Your task to perform on an android device: Open Yahoo.com Image 0: 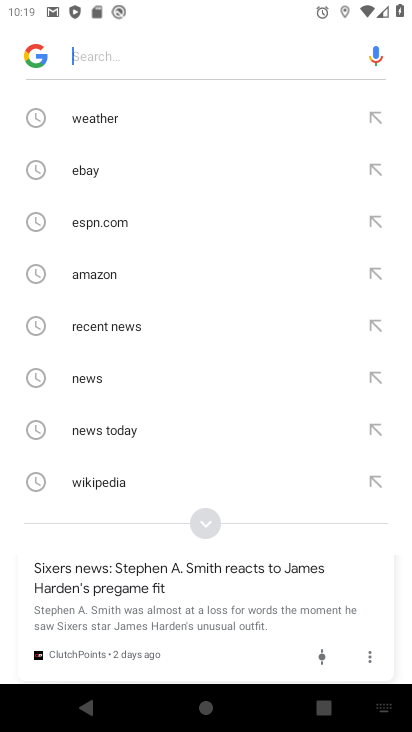
Step 0: press back button
Your task to perform on an android device: Open Yahoo.com Image 1: 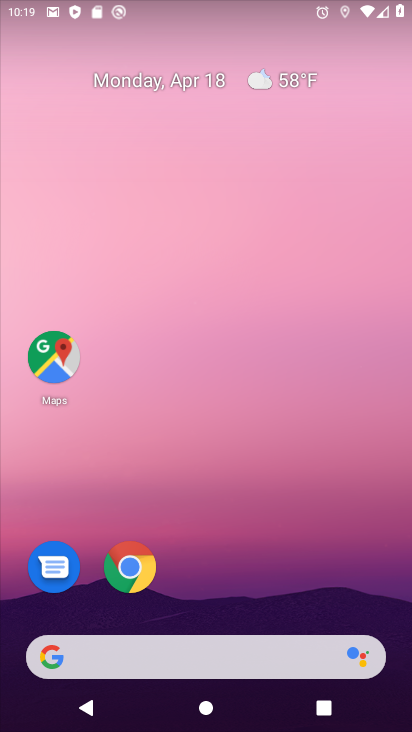
Step 1: click (129, 569)
Your task to perform on an android device: Open Yahoo.com Image 2: 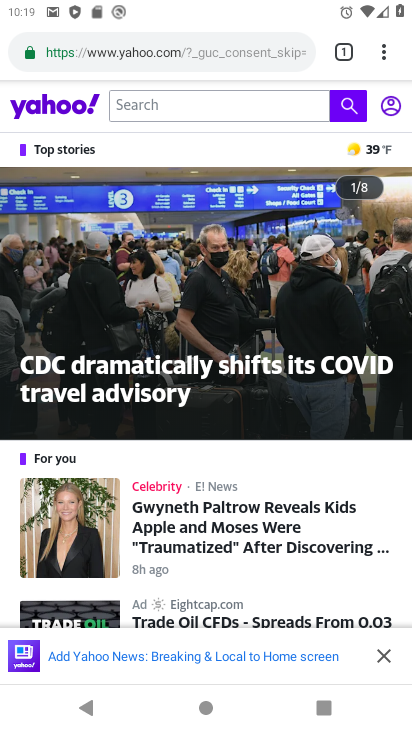
Step 2: task complete